Your task to perform on an android device: open app "Google Keep" Image 0: 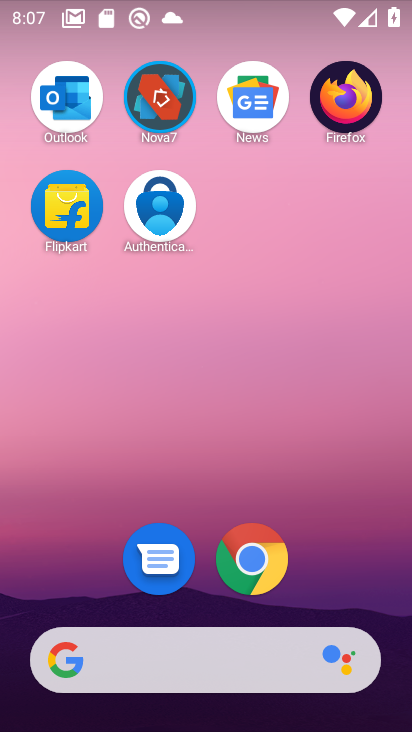
Step 0: drag from (209, 615) to (196, 166)
Your task to perform on an android device: open app "Google Keep" Image 1: 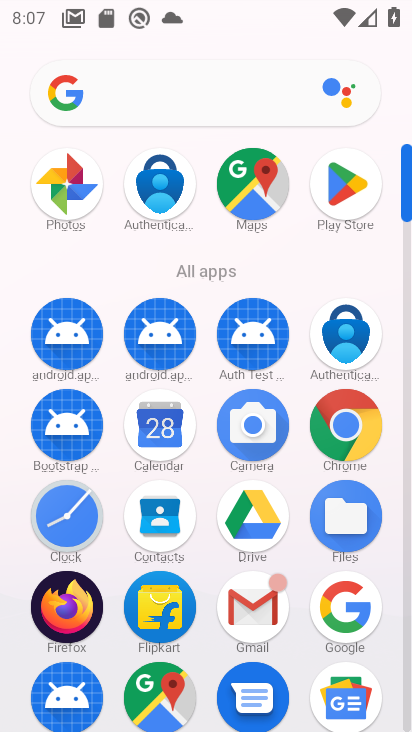
Step 1: click (353, 210)
Your task to perform on an android device: open app "Google Keep" Image 2: 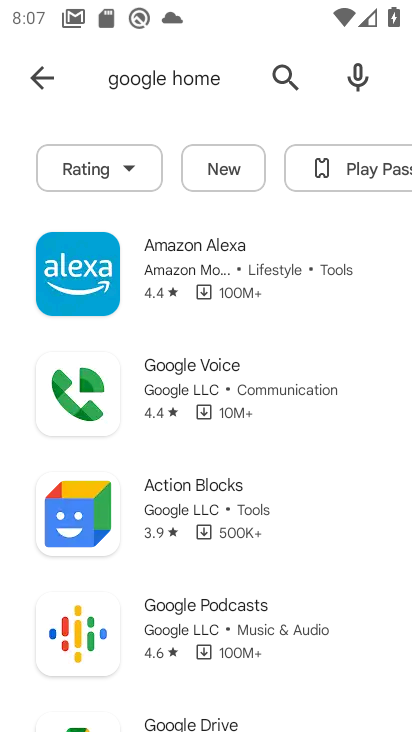
Step 2: click (155, 92)
Your task to perform on an android device: open app "Google Keep" Image 3: 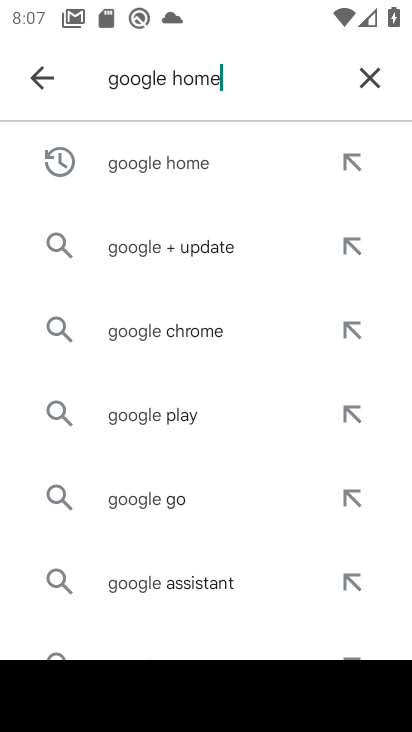
Step 3: click (190, 82)
Your task to perform on an android device: open app "Google Keep" Image 4: 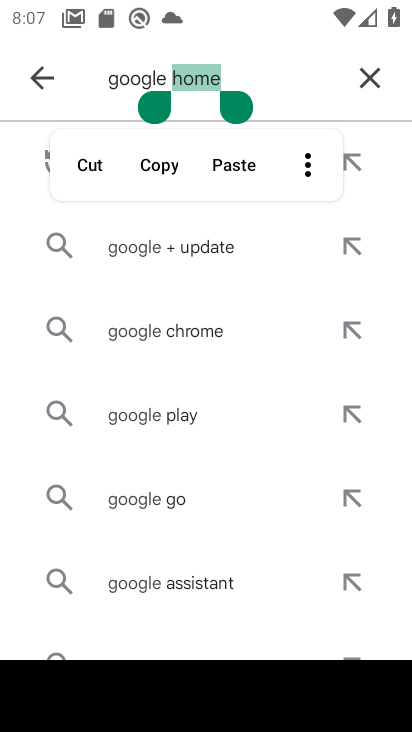
Step 4: type "Keep"
Your task to perform on an android device: open app "Google Keep" Image 5: 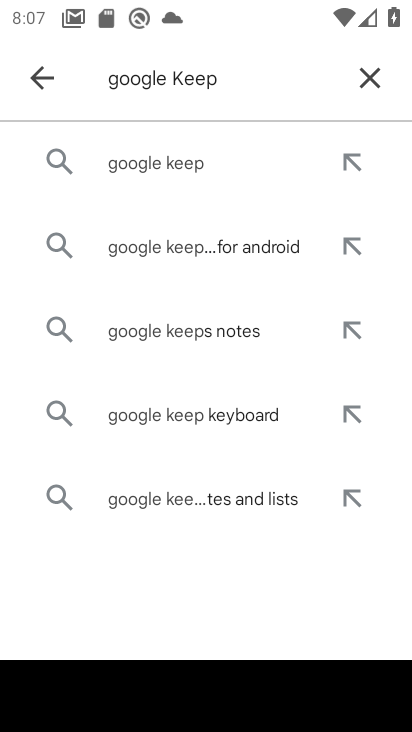
Step 5: click (155, 162)
Your task to perform on an android device: open app "Google Keep" Image 6: 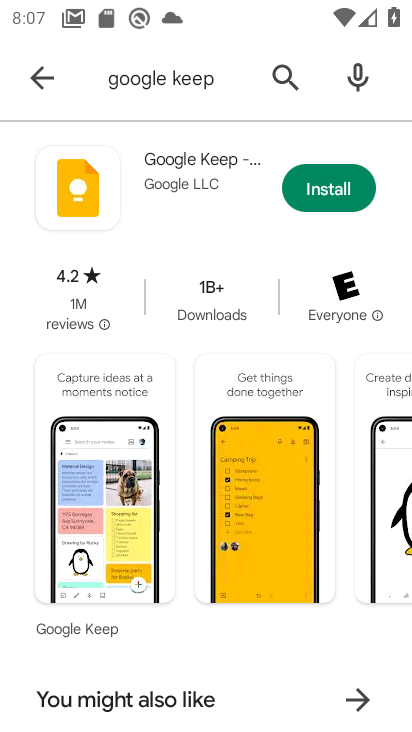
Step 6: task complete